Your task to perform on an android device: toggle sleep mode Image 0: 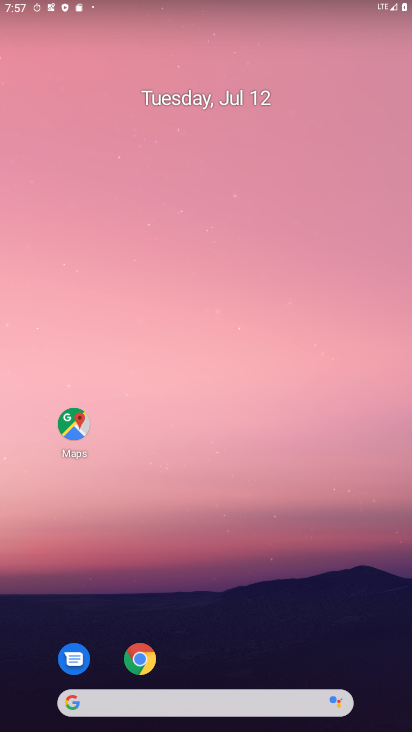
Step 0: drag from (369, 632) to (263, 77)
Your task to perform on an android device: toggle sleep mode Image 1: 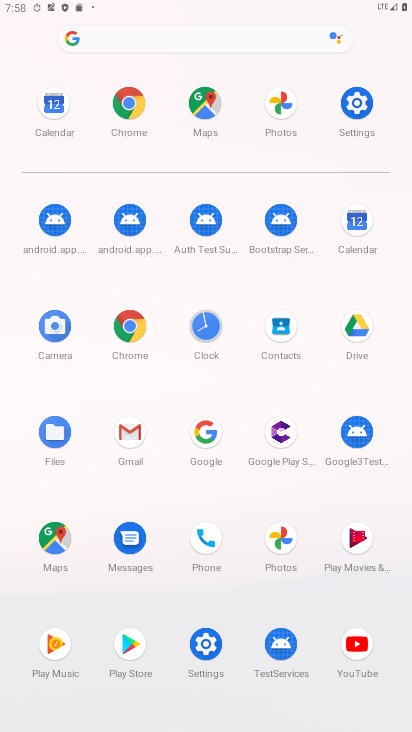
Step 1: click (194, 645)
Your task to perform on an android device: toggle sleep mode Image 2: 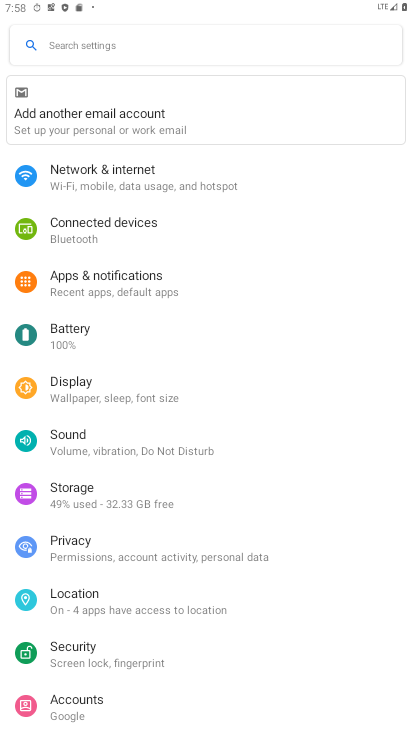
Step 2: task complete